Your task to perform on an android device: turn on improve location accuracy Image 0: 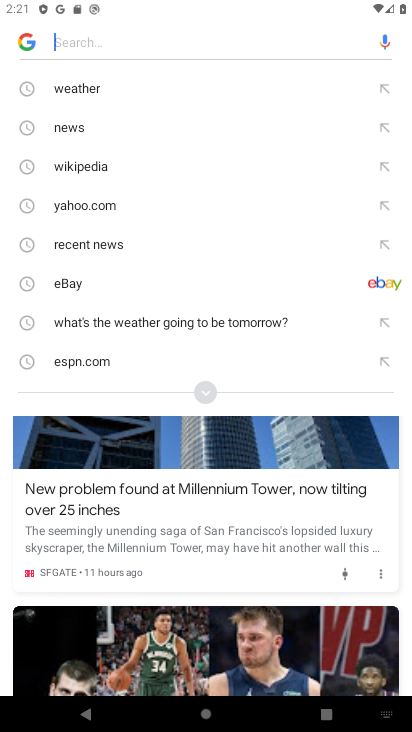
Step 0: press home button
Your task to perform on an android device: turn on improve location accuracy Image 1: 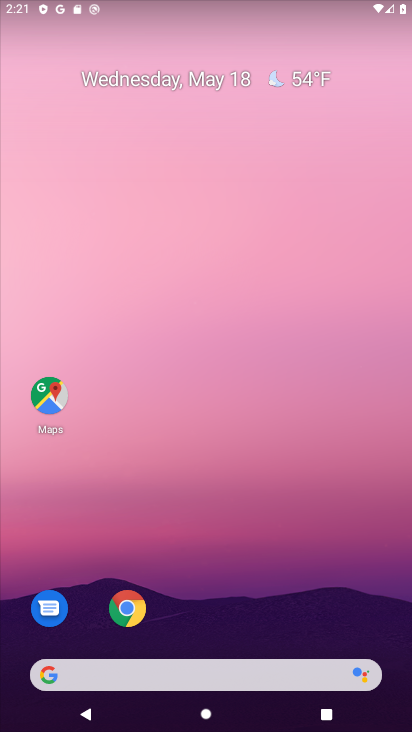
Step 1: drag from (318, 572) to (309, 0)
Your task to perform on an android device: turn on improve location accuracy Image 2: 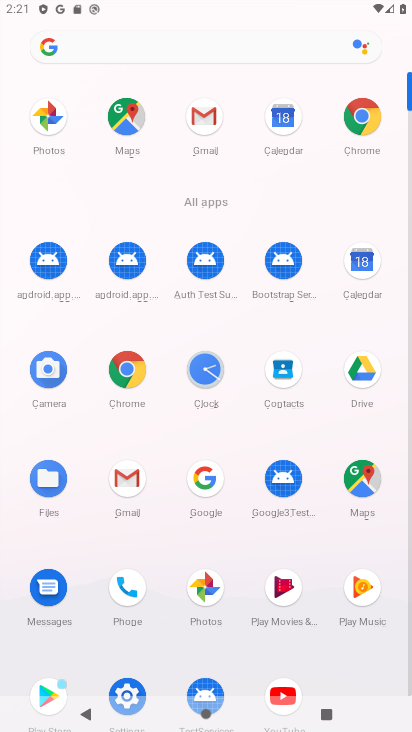
Step 2: click (127, 685)
Your task to perform on an android device: turn on improve location accuracy Image 3: 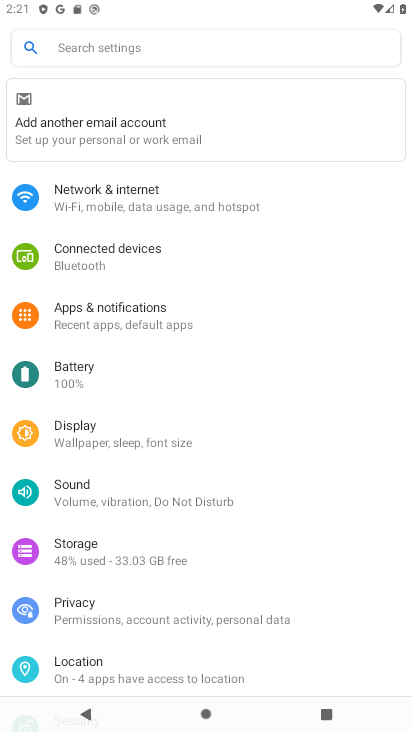
Step 3: click (83, 671)
Your task to perform on an android device: turn on improve location accuracy Image 4: 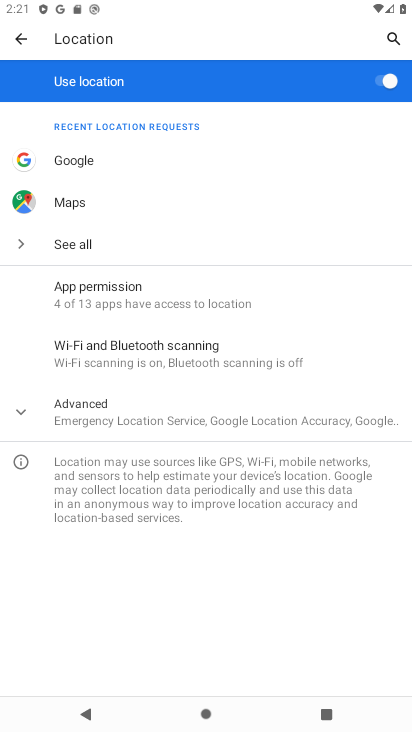
Step 4: click (20, 407)
Your task to perform on an android device: turn on improve location accuracy Image 5: 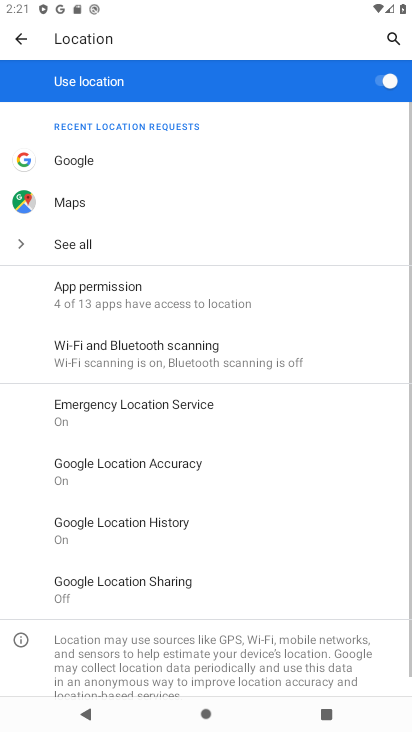
Step 5: click (92, 466)
Your task to perform on an android device: turn on improve location accuracy Image 6: 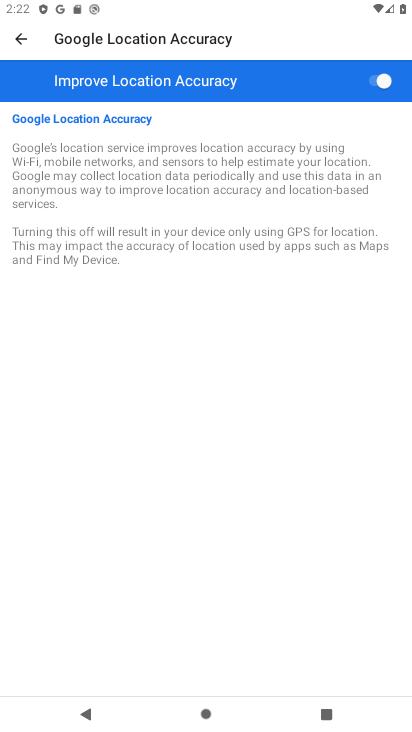
Step 6: task complete